Your task to perform on an android device: set the timer Image 0: 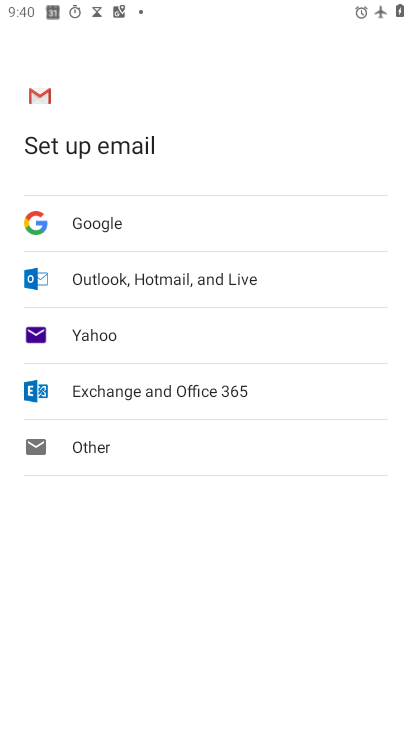
Step 0: press home button
Your task to perform on an android device: set the timer Image 1: 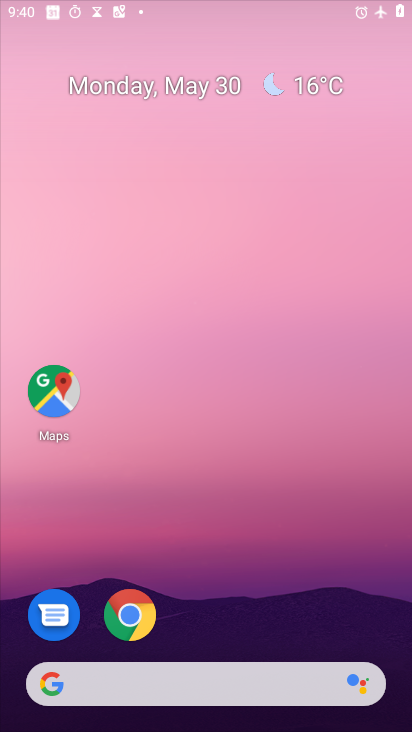
Step 1: drag from (314, 574) to (291, 44)
Your task to perform on an android device: set the timer Image 2: 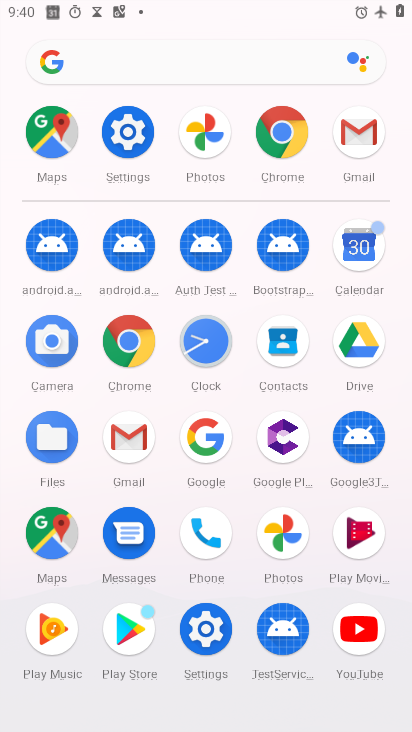
Step 2: click (207, 337)
Your task to perform on an android device: set the timer Image 3: 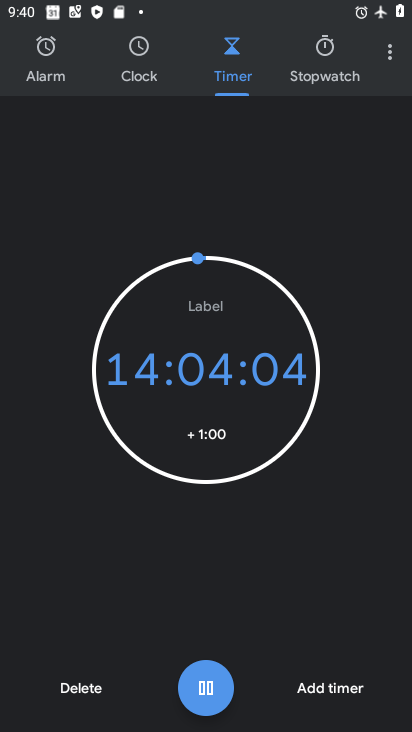
Step 3: task complete